Your task to perform on an android device: When is my next meeting? Image 0: 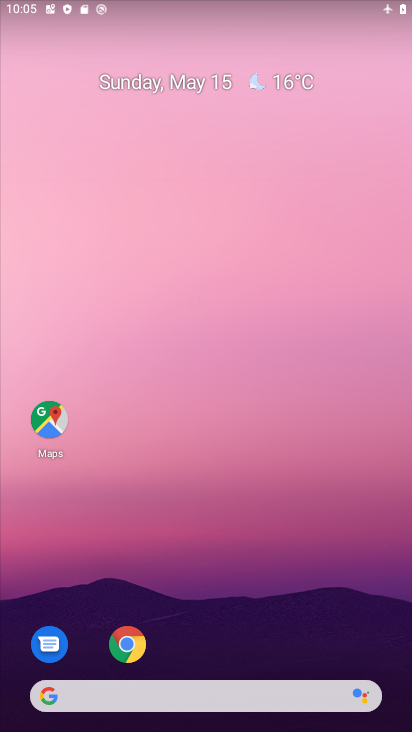
Step 0: drag from (194, 591) to (273, 45)
Your task to perform on an android device: When is my next meeting? Image 1: 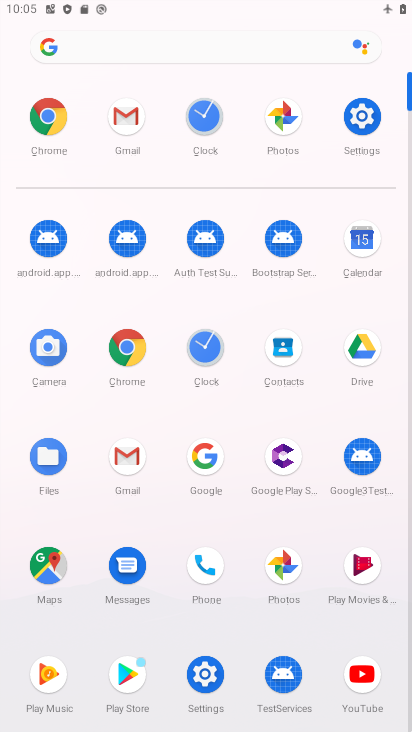
Step 1: click (358, 243)
Your task to perform on an android device: When is my next meeting? Image 2: 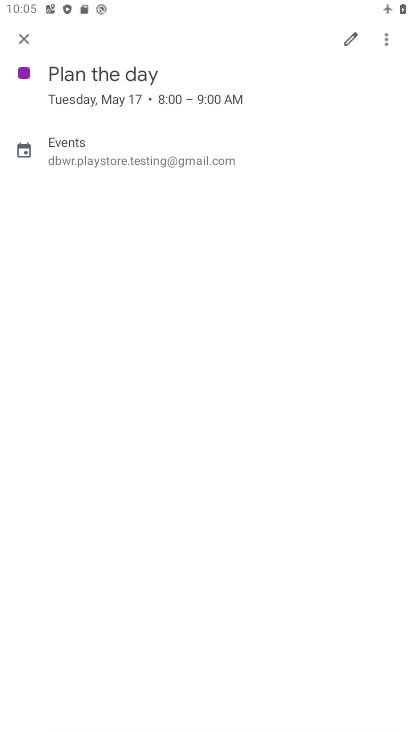
Step 2: click (23, 37)
Your task to perform on an android device: When is my next meeting? Image 3: 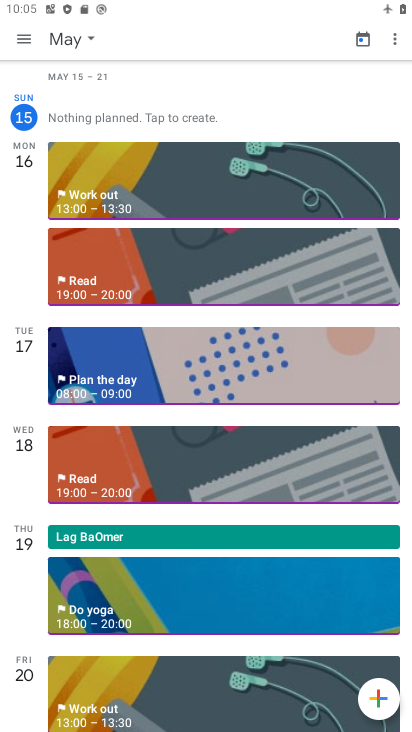
Step 3: task complete